Your task to perform on an android device: turn off translation in the chrome app Image 0: 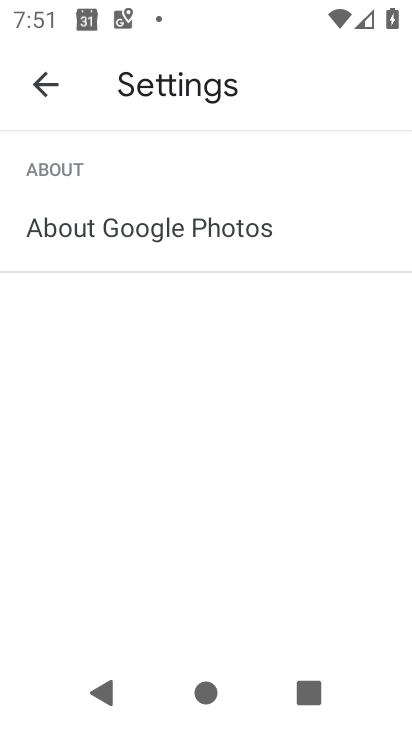
Step 0: press home button
Your task to perform on an android device: turn off translation in the chrome app Image 1: 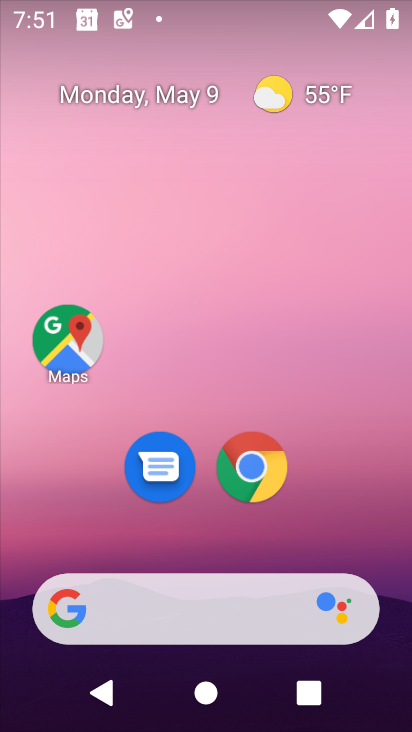
Step 1: click (241, 471)
Your task to perform on an android device: turn off translation in the chrome app Image 2: 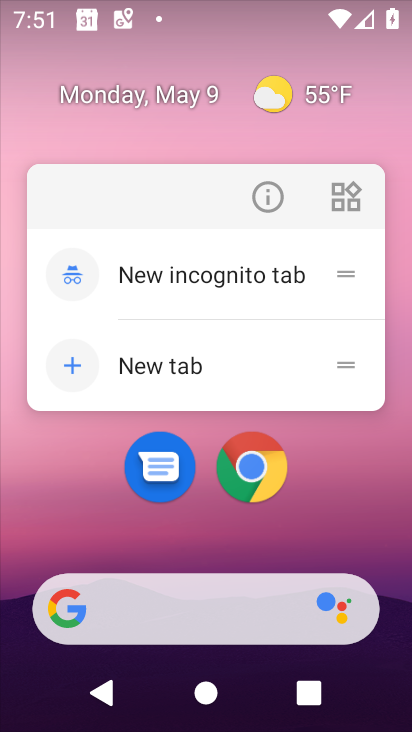
Step 2: click (252, 478)
Your task to perform on an android device: turn off translation in the chrome app Image 3: 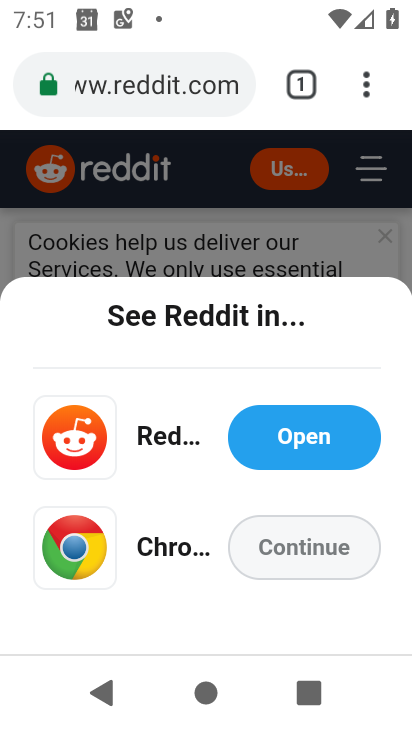
Step 3: drag from (363, 89) to (102, 525)
Your task to perform on an android device: turn off translation in the chrome app Image 4: 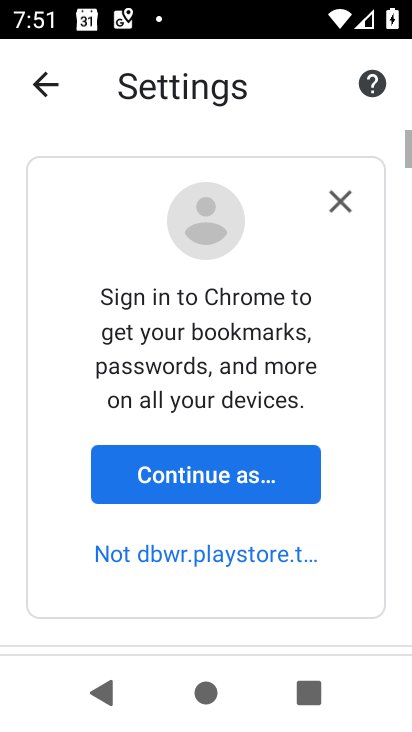
Step 4: drag from (241, 608) to (244, 179)
Your task to perform on an android device: turn off translation in the chrome app Image 5: 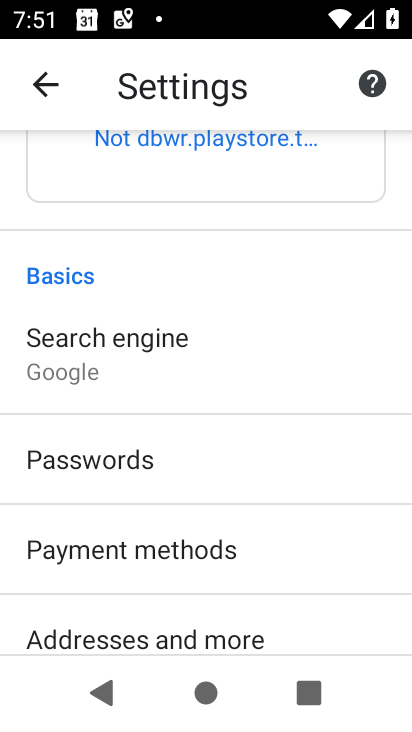
Step 5: drag from (228, 485) to (214, 151)
Your task to perform on an android device: turn off translation in the chrome app Image 6: 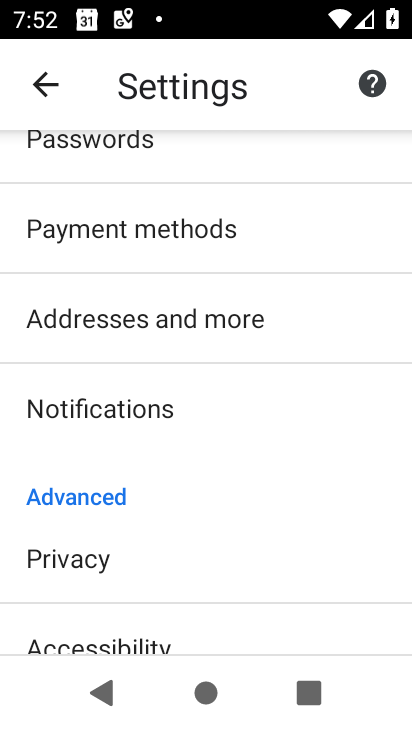
Step 6: drag from (170, 506) to (160, 195)
Your task to perform on an android device: turn off translation in the chrome app Image 7: 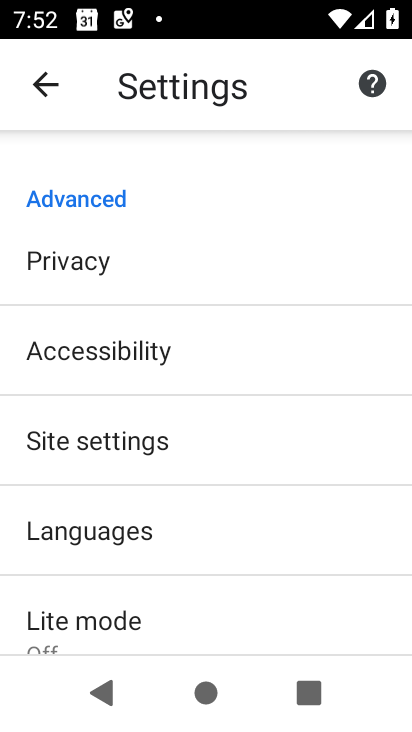
Step 7: click (104, 538)
Your task to perform on an android device: turn off translation in the chrome app Image 8: 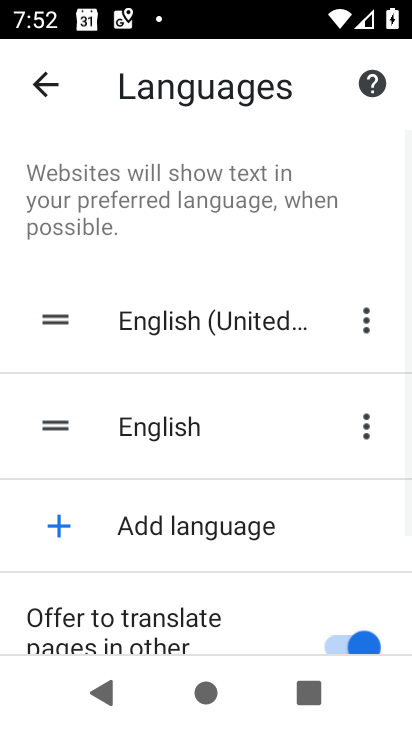
Step 8: drag from (181, 552) to (167, 278)
Your task to perform on an android device: turn off translation in the chrome app Image 9: 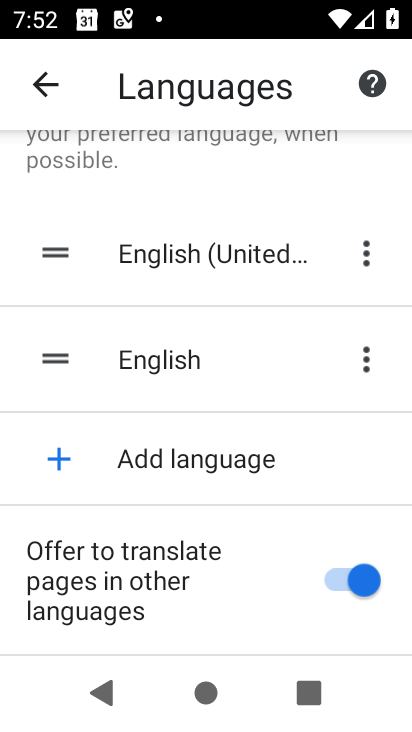
Step 9: click (346, 587)
Your task to perform on an android device: turn off translation in the chrome app Image 10: 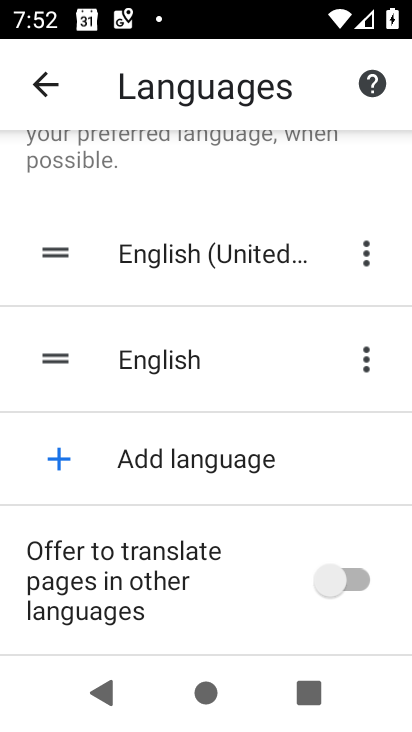
Step 10: task complete